Your task to perform on an android device: open device folders in google photos Image 0: 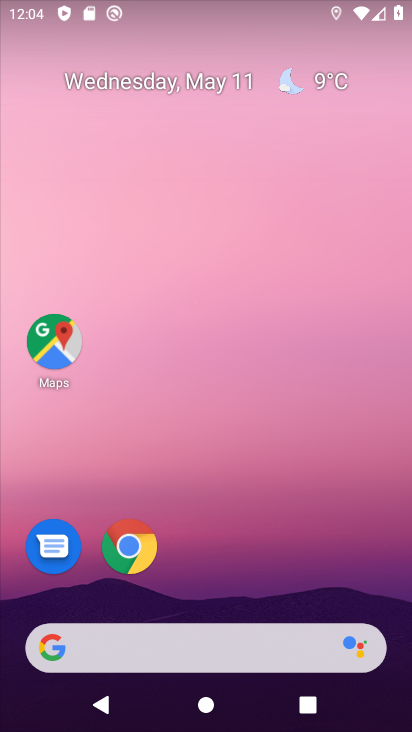
Step 0: drag from (208, 573) to (317, 160)
Your task to perform on an android device: open device folders in google photos Image 1: 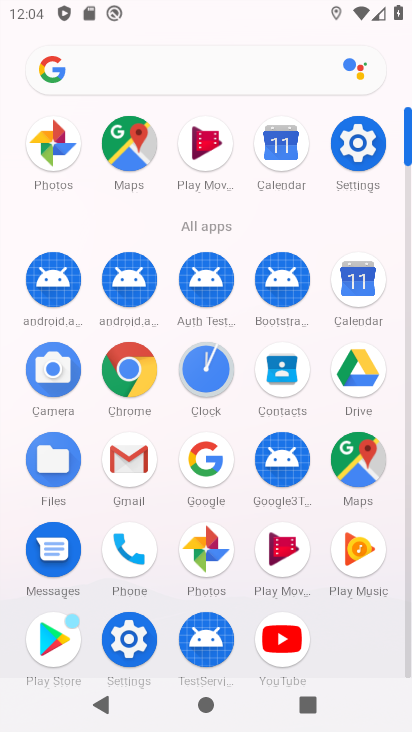
Step 1: click (207, 544)
Your task to perform on an android device: open device folders in google photos Image 2: 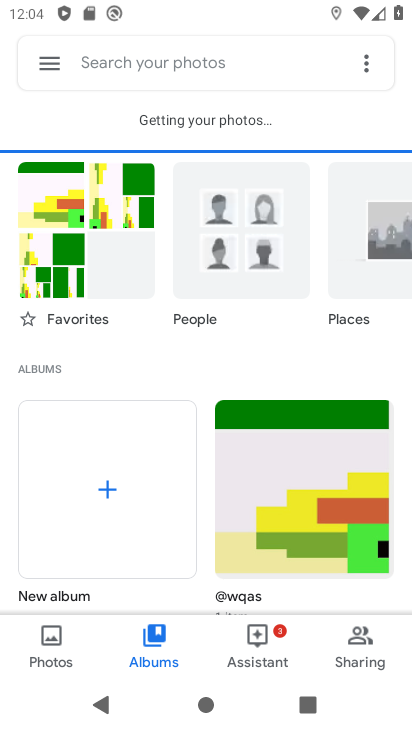
Step 2: click (48, 64)
Your task to perform on an android device: open device folders in google photos Image 3: 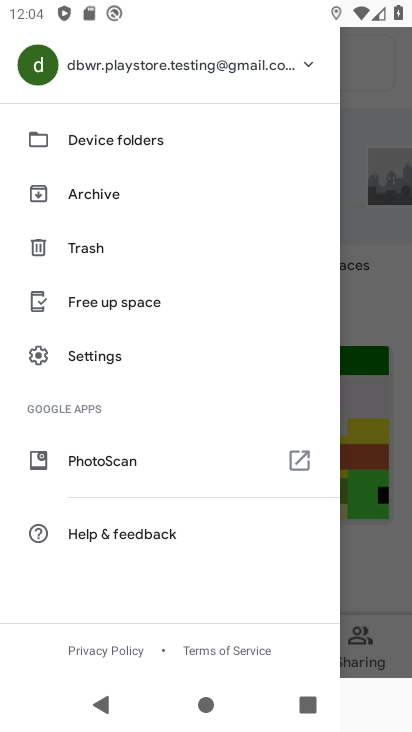
Step 3: click (79, 142)
Your task to perform on an android device: open device folders in google photos Image 4: 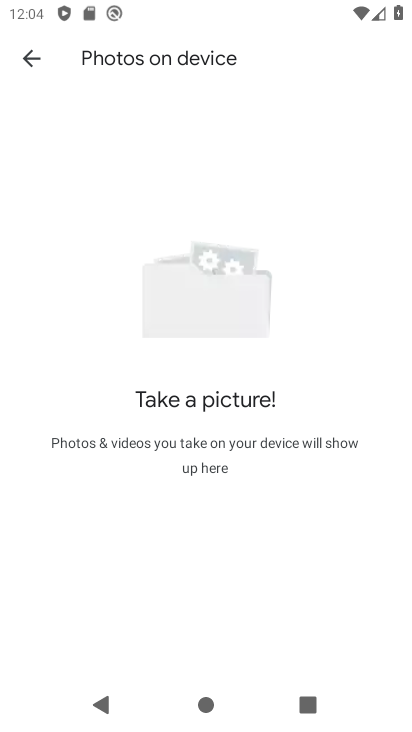
Step 4: task complete